Your task to perform on an android device: allow notifications from all sites in the chrome app Image 0: 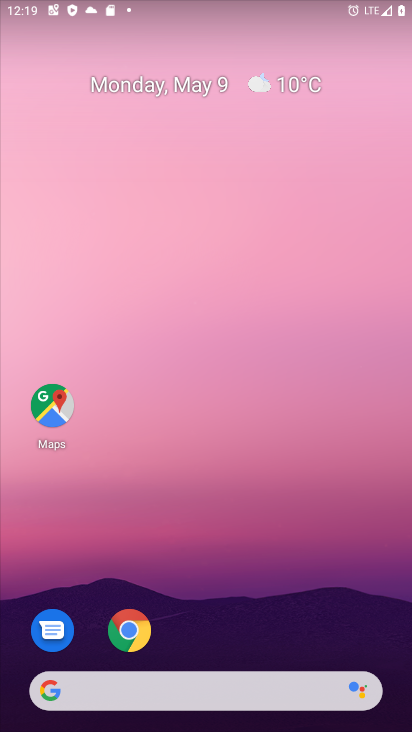
Step 0: drag from (324, 610) to (262, 82)
Your task to perform on an android device: allow notifications from all sites in the chrome app Image 1: 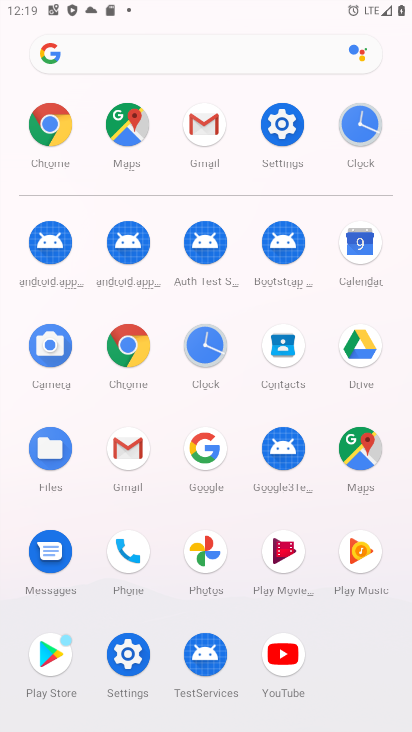
Step 1: click (136, 354)
Your task to perform on an android device: allow notifications from all sites in the chrome app Image 2: 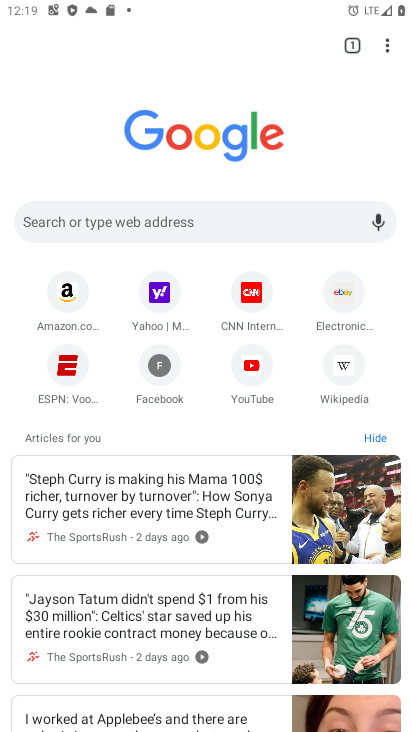
Step 2: click (391, 43)
Your task to perform on an android device: allow notifications from all sites in the chrome app Image 3: 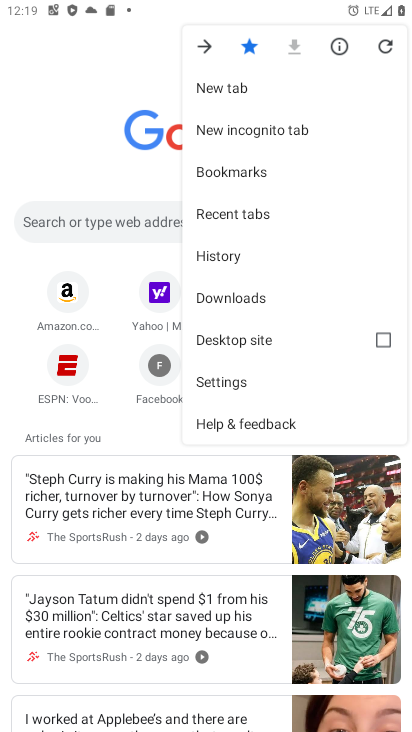
Step 3: click (251, 383)
Your task to perform on an android device: allow notifications from all sites in the chrome app Image 4: 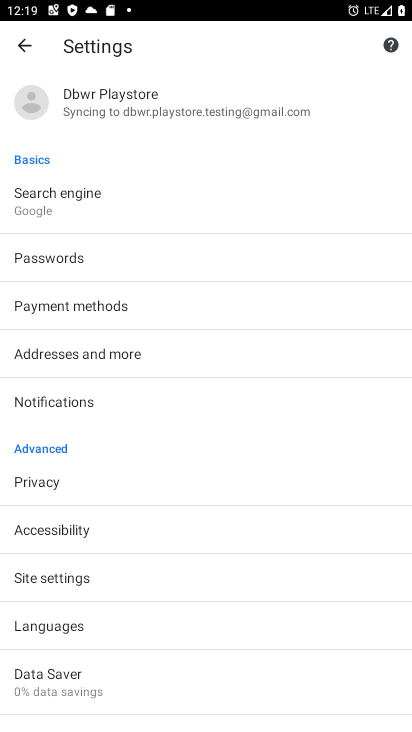
Step 4: click (99, 576)
Your task to perform on an android device: allow notifications from all sites in the chrome app Image 5: 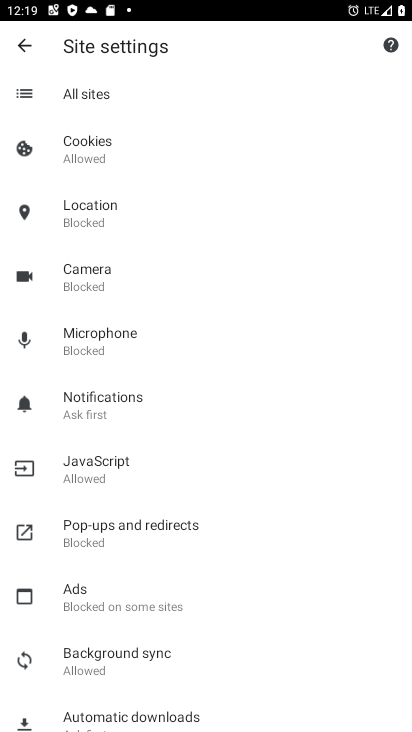
Step 5: click (162, 154)
Your task to perform on an android device: allow notifications from all sites in the chrome app Image 6: 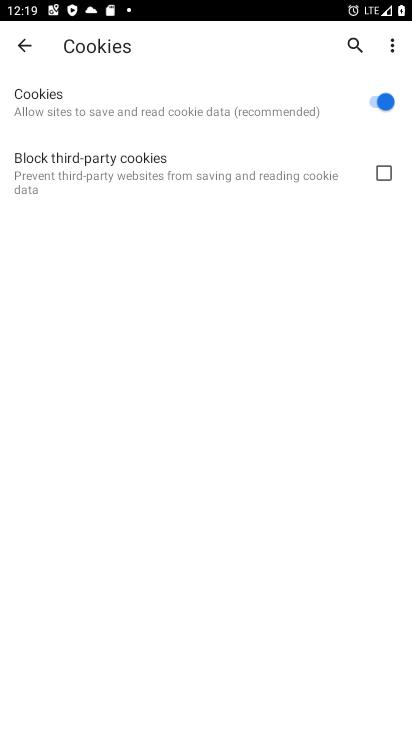
Step 6: task complete